Your task to perform on an android device: change the clock style Image 0: 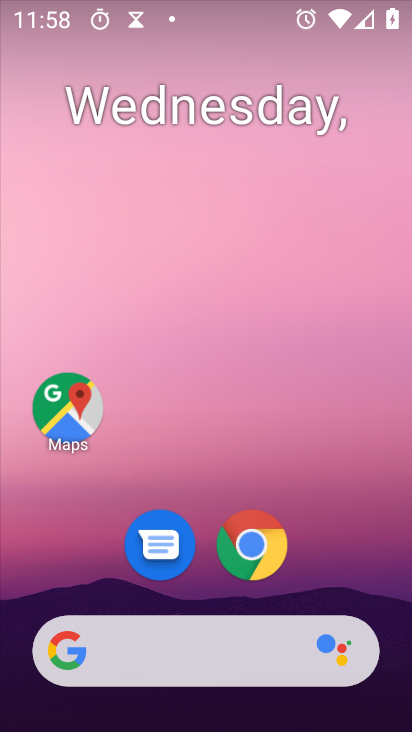
Step 0: press home button
Your task to perform on an android device: change the clock style Image 1: 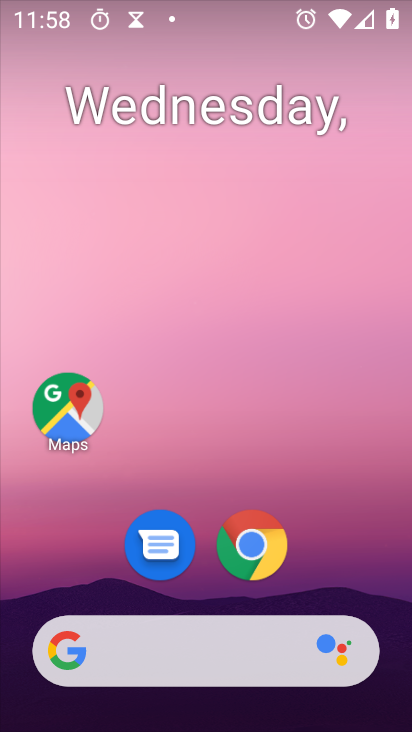
Step 1: drag from (144, 659) to (303, 175)
Your task to perform on an android device: change the clock style Image 2: 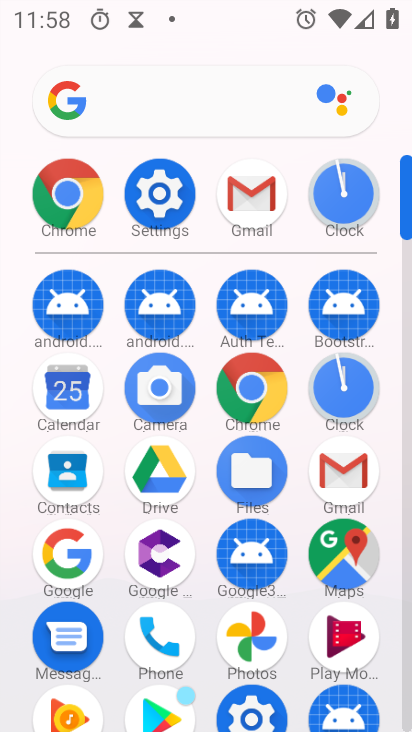
Step 2: click (356, 391)
Your task to perform on an android device: change the clock style Image 3: 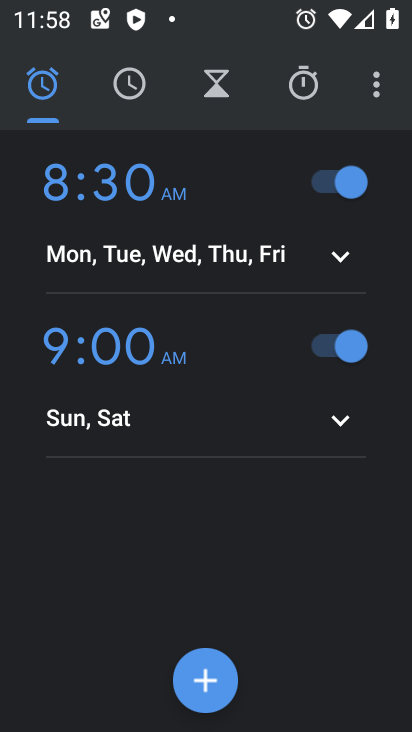
Step 3: click (369, 91)
Your task to perform on an android device: change the clock style Image 4: 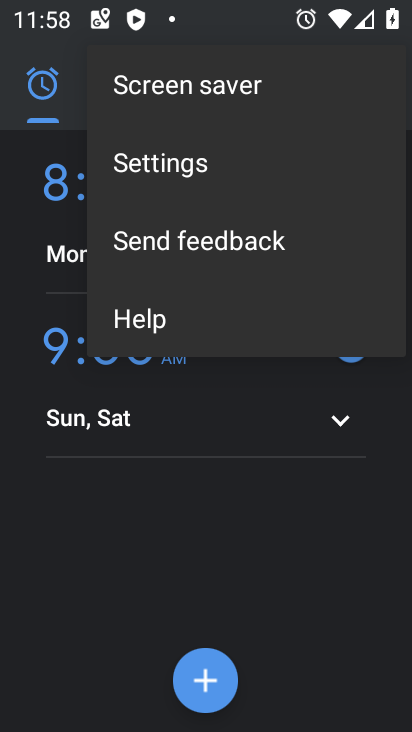
Step 4: click (202, 161)
Your task to perform on an android device: change the clock style Image 5: 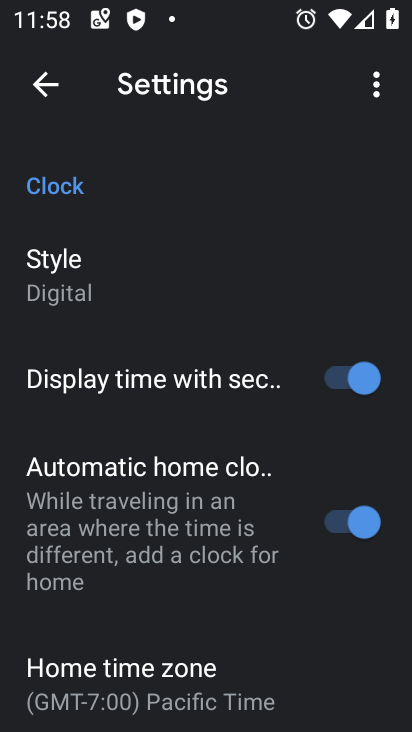
Step 5: click (76, 286)
Your task to perform on an android device: change the clock style Image 6: 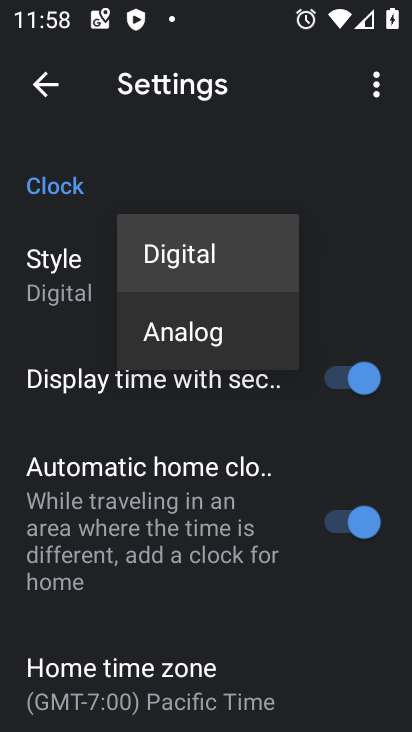
Step 6: click (162, 337)
Your task to perform on an android device: change the clock style Image 7: 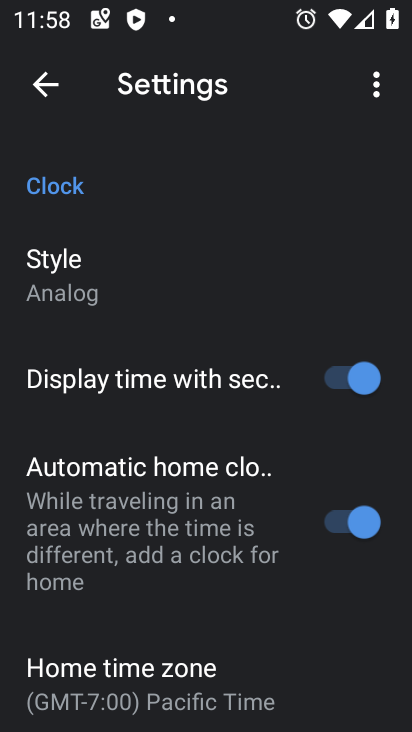
Step 7: task complete